Your task to perform on an android device: Open Android settings Image 0: 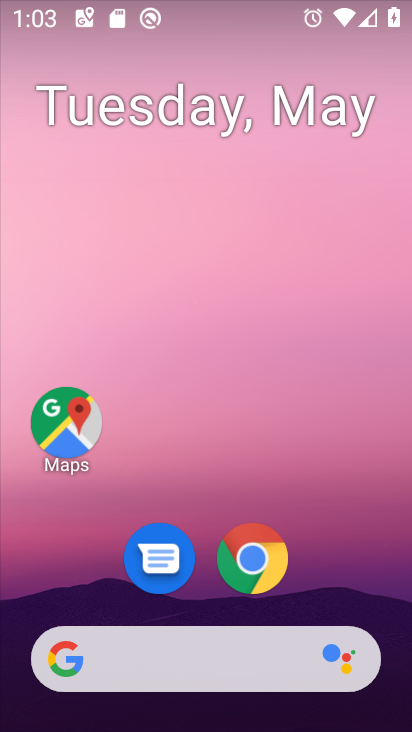
Step 0: drag from (356, 581) to (284, 128)
Your task to perform on an android device: Open Android settings Image 1: 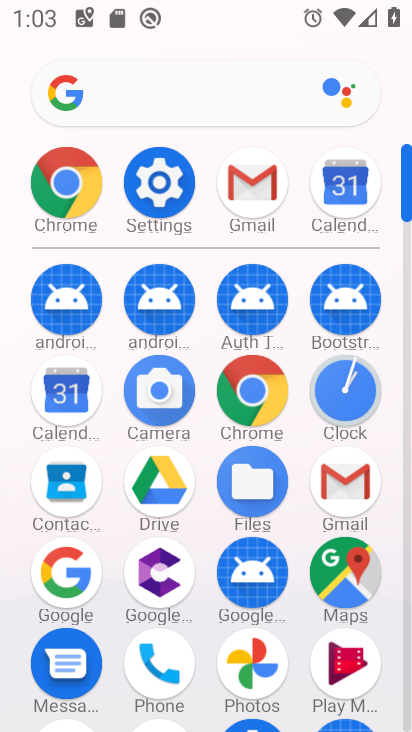
Step 1: click (147, 159)
Your task to perform on an android device: Open Android settings Image 2: 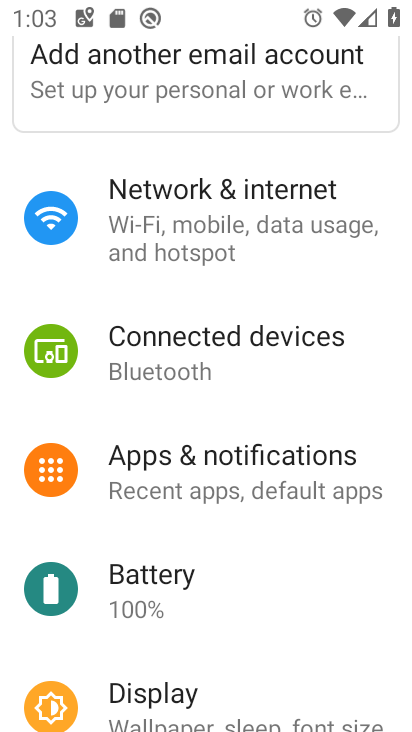
Step 2: task complete